Your task to perform on an android device: Open ESPN.com Image 0: 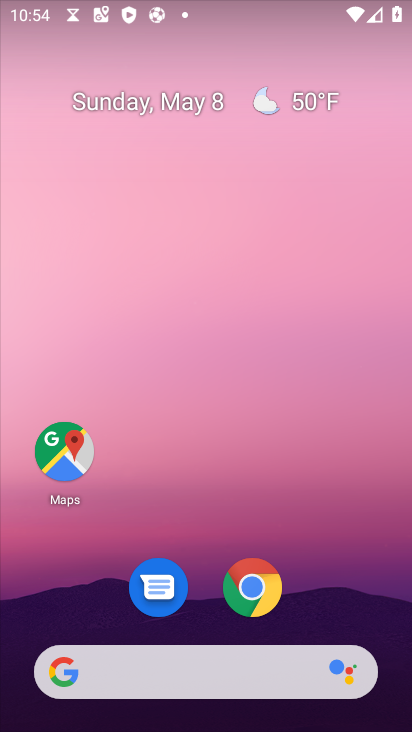
Step 0: click (256, 593)
Your task to perform on an android device: Open ESPN.com Image 1: 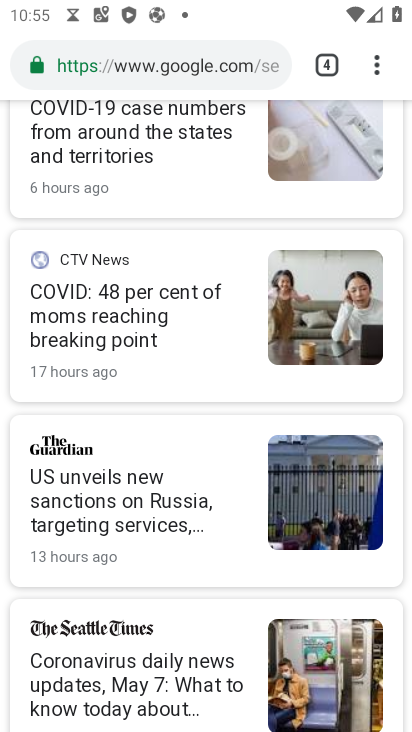
Step 1: click (378, 66)
Your task to perform on an android device: Open ESPN.com Image 2: 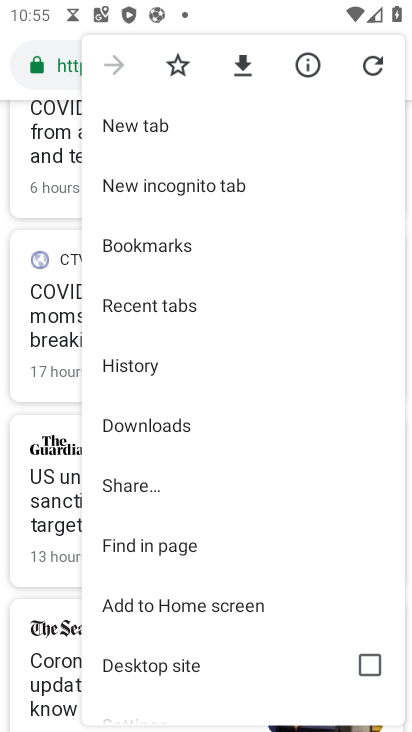
Step 2: click (44, 79)
Your task to perform on an android device: Open ESPN.com Image 3: 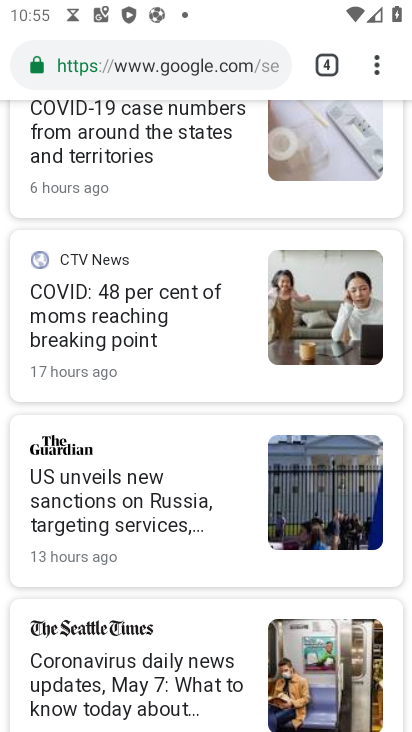
Step 3: click (327, 67)
Your task to perform on an android device: Open ESPN.com Image 4: 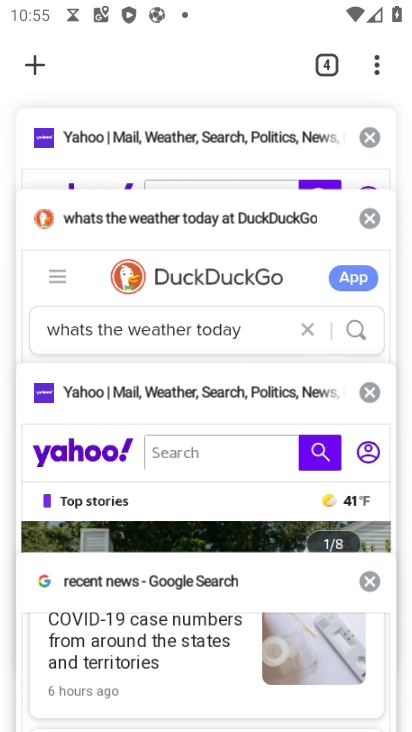
Step 4: click (34, 59)
Your task to perform on an android device: Open ESPN.com Image 5: 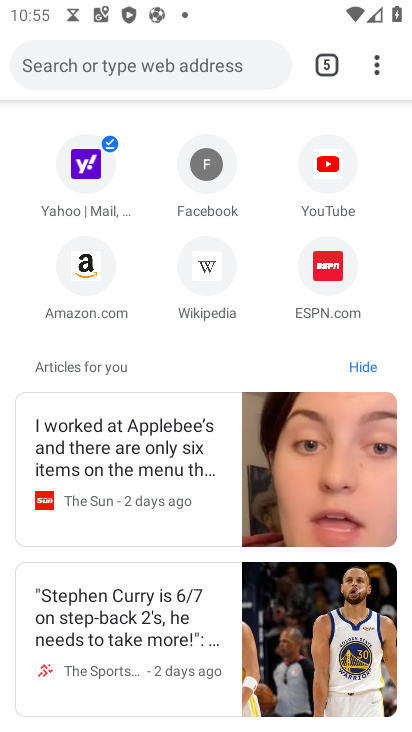
Step 5: click (330, 273)
Your task to perform on an android device: Open ESPN.com Image 6: 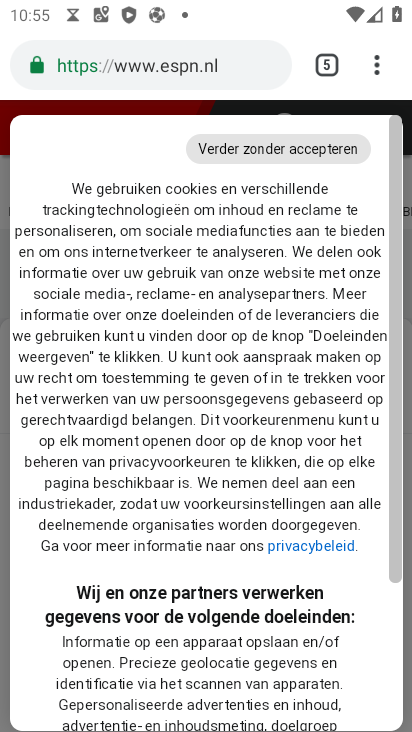
Step 6: task complete